Your task to perform on an android device: turn off sleep mode Image 0: 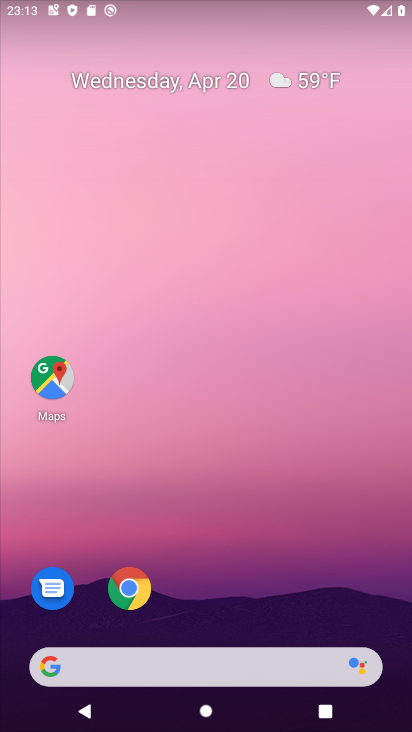
Step 0: drag from (219, 692) to (195, 112)
Your task to perform on an android device: turn off sleep mode Image 1: 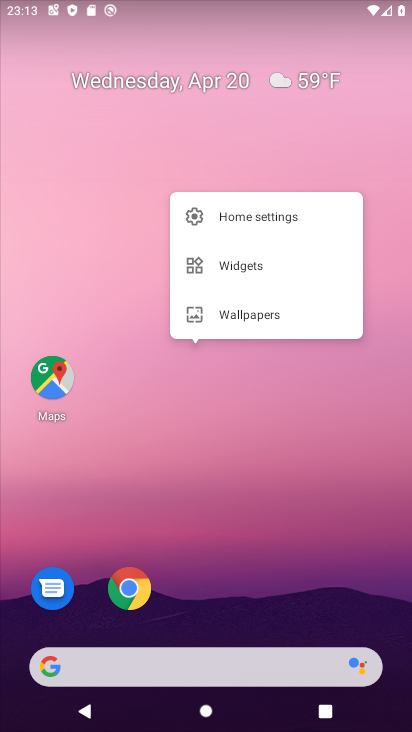
Step 1: click (215, 459)
Your task to perform on an android device: turn off sleep mode Image 2: 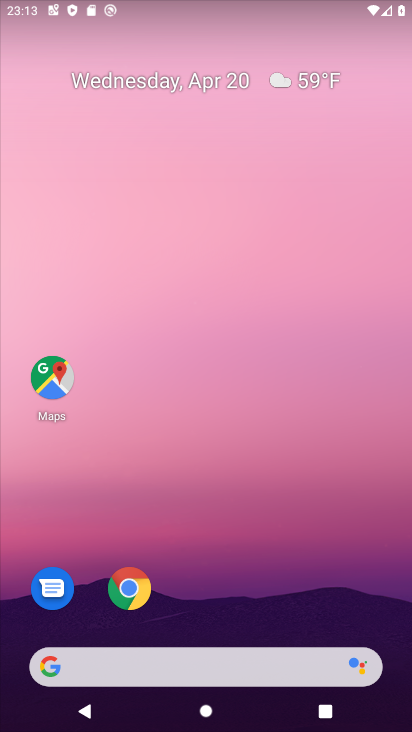
Step 2: drag from (236, 725) to (216, 144)
Your task to perform on an android device: turn off sleep mode Image 3: 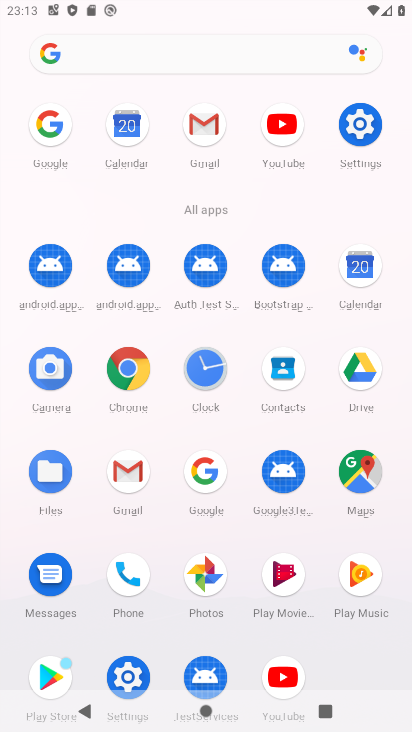
Step 3: click (361, 128)
Your task to perform on an android device: turn off sleep mode Image 4: 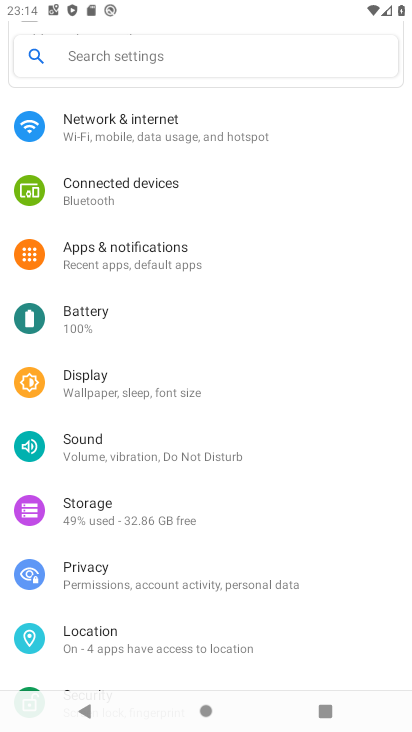
Step 4: click (148, 390)
Your task to perform on an android device: turn off sleep mode Image 5: 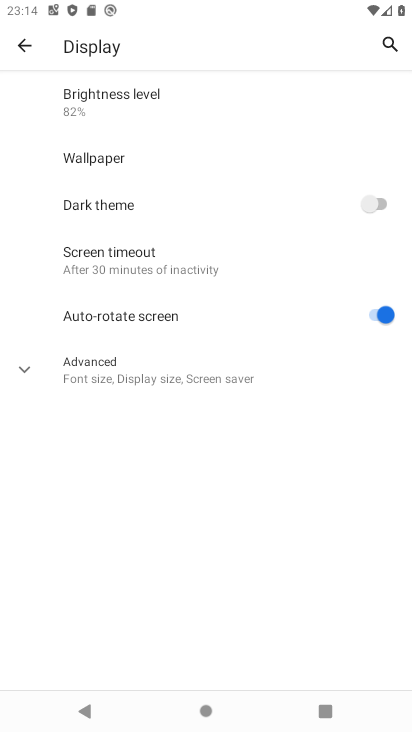
Step 5: task complete